Your task to perform on an android device: open chrome privacy settings Image 0: 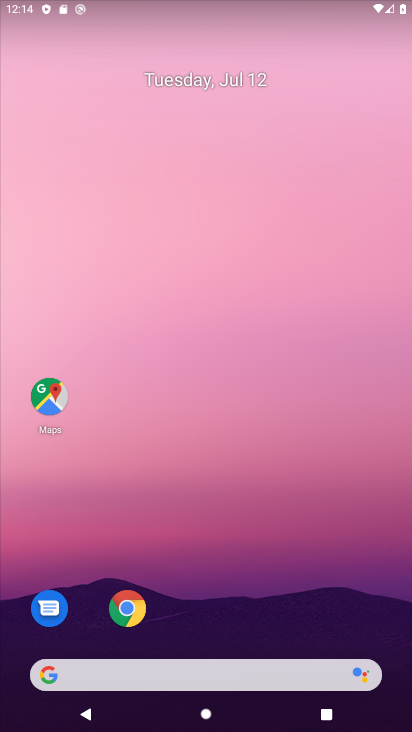
Step 0: drag from (220, 678) to (152, 373)
Your task to perform on an android device: open chrome privacy settings Image 1: 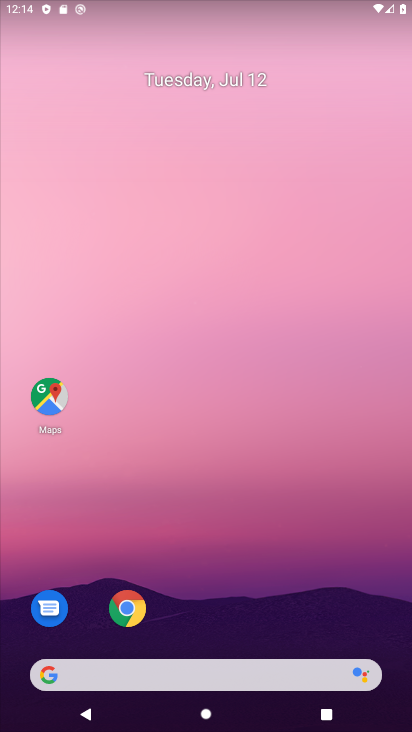
Step 1: drag from (275, 654) to (200, 133)
Your task to perform on an android device: open chrome privacy settings Image 2: 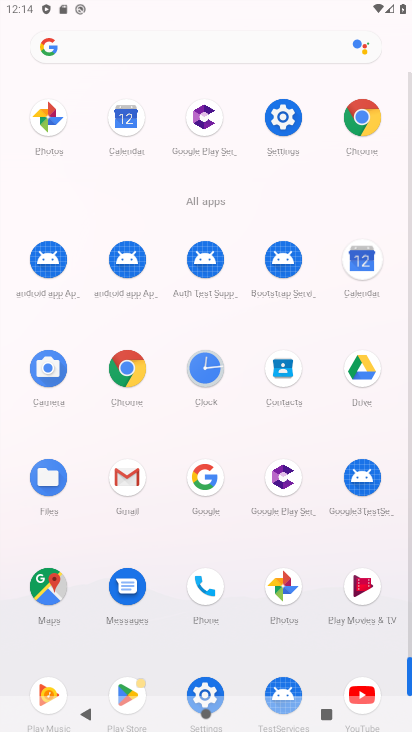
Step 2: click (287, 118)
Your task to perform on an android device: open chrome privacy settings Image 3: 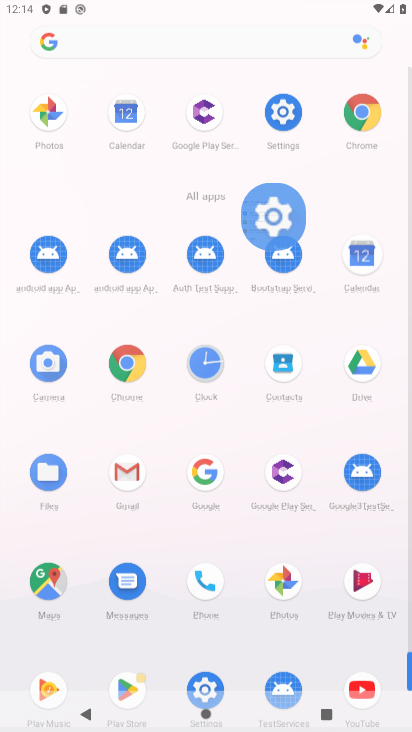
Step 3: click (283, 119)
Your task to perform on an android device: open chrome privacy settings Image 4: 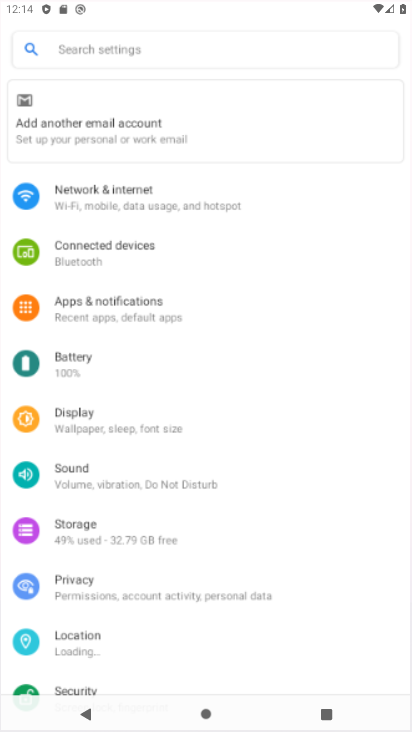
Step 4: click (286, 122)
Your task to perform on an android device: open chrome privacy settings Image 5: 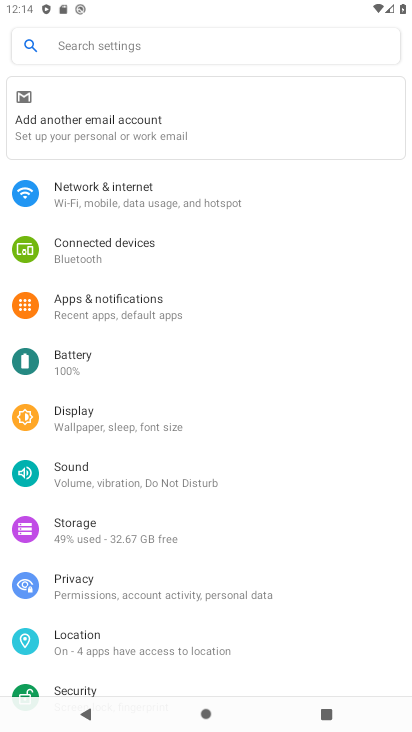
Step 5: click (76, 589)
Your task to perform on an android device: open chrome privacy settings Image 6: 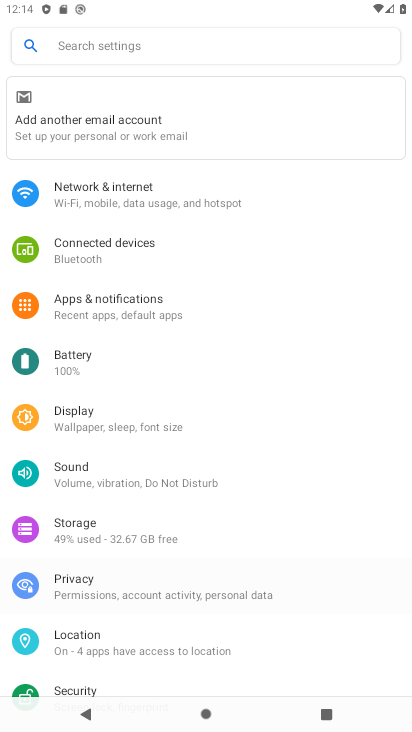
Step 6: click (76, 589)
Your task to perform on an android device: open chrome privacy settings Image 7: 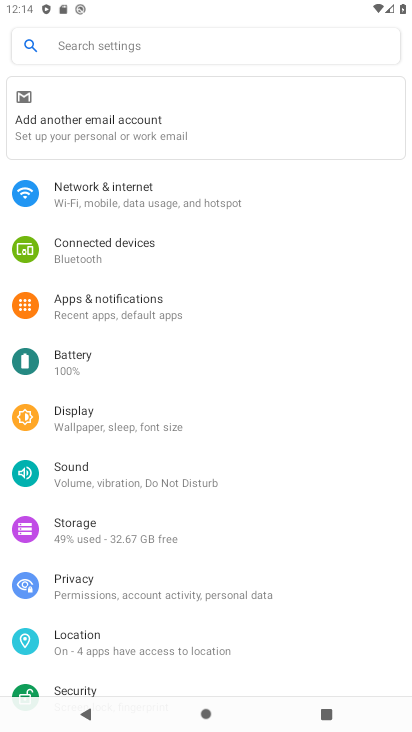
Step 7: click (81, 592)
Your task to perform on an android device: open chrome privacy settings Image 8: 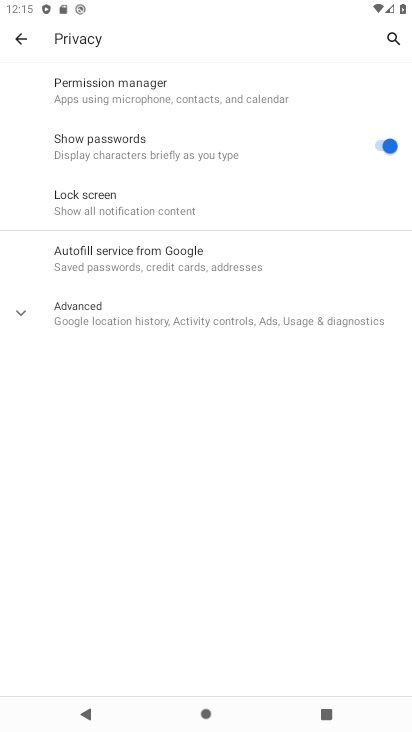
Step 8: click (14, 32)
Your task to perform on an android device: open chrome privacy settings Image 9: 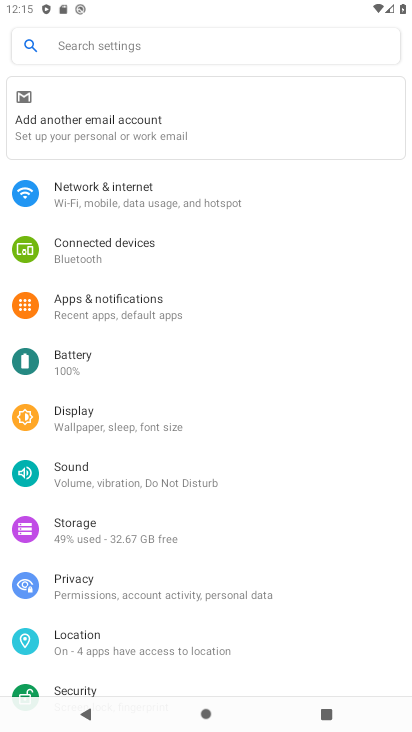
Step 9: click (74, 575)
Your task to perform on an android device: open chrome privacy settings Image 10: 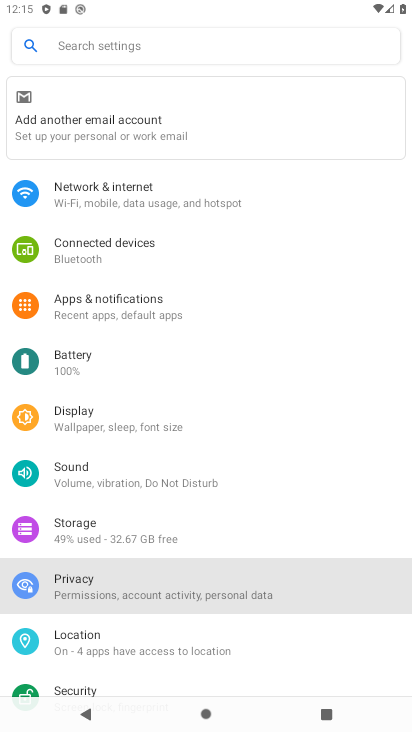
Step 10: click (74, 575)
Your task to perform on an android device: open chrome privacy settings Image 11: 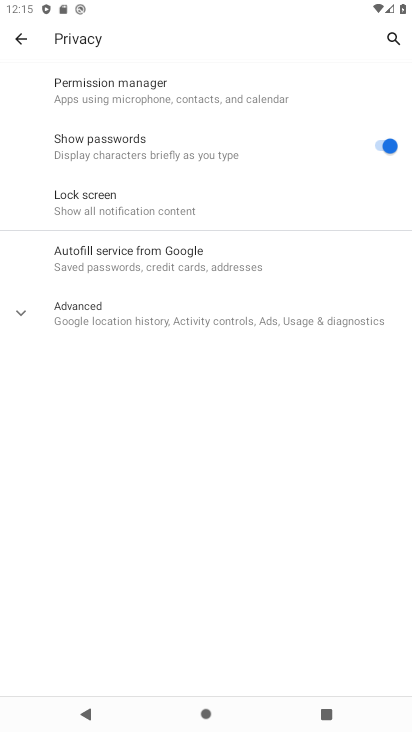
Step 11: click (17, 35)
Your task to perform on an android device: open chrome privacy settings Image 12: 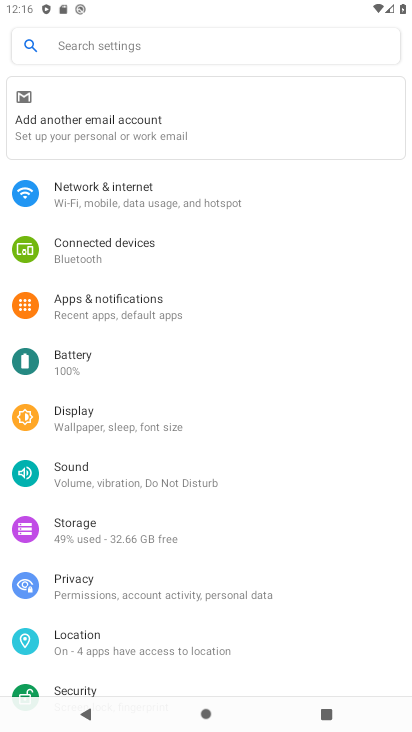
Step 12: click (20, 37)
Your task to perform on an android device: open chrome privacy settings Image 13: 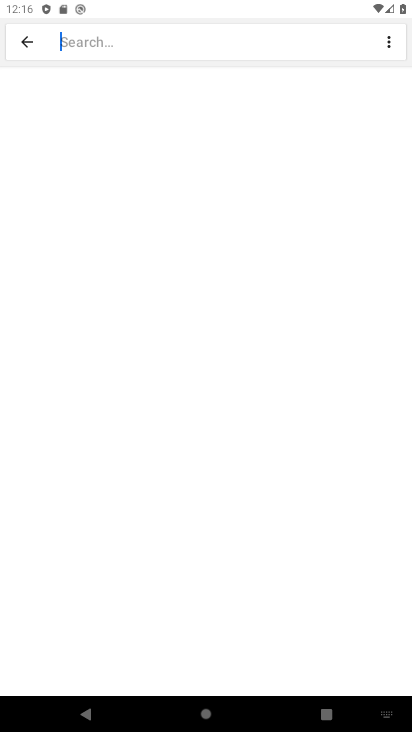
Step 13: click (28, 52)
Your task to perform on an android device: open chrome privacy settings Image 14: 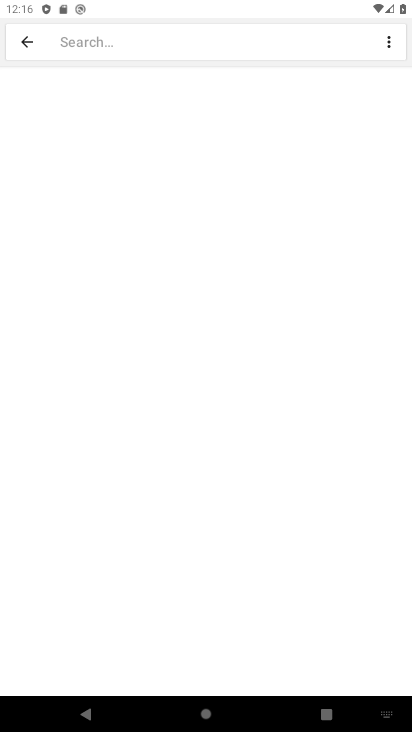
Step 14: click (28, 52)
Your task to perform on an android device: open chrome privacy settings Image 15: 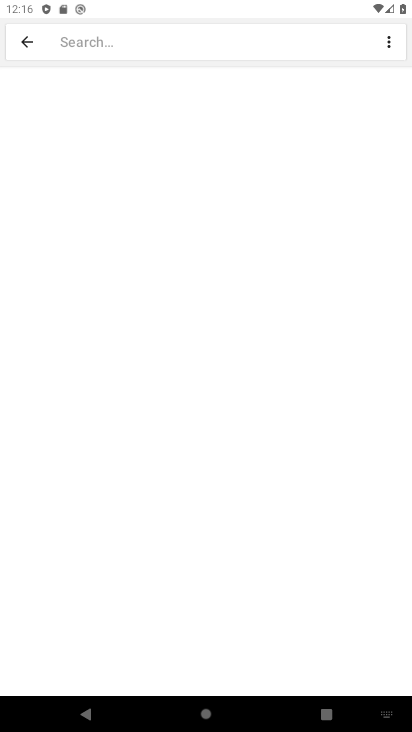
Step 15: click (30, 51)
Your task to perform on an android device: open chrome privacy settings Image 16: 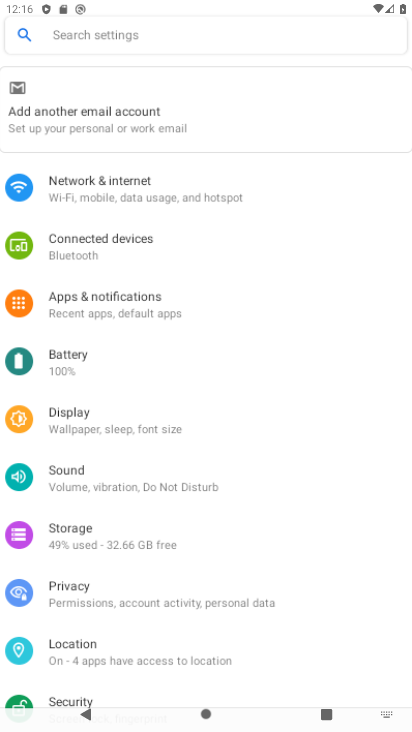
Step 16: click (30, 51)
Your task to perform on an android device: open chrome privacy settings Image 17: 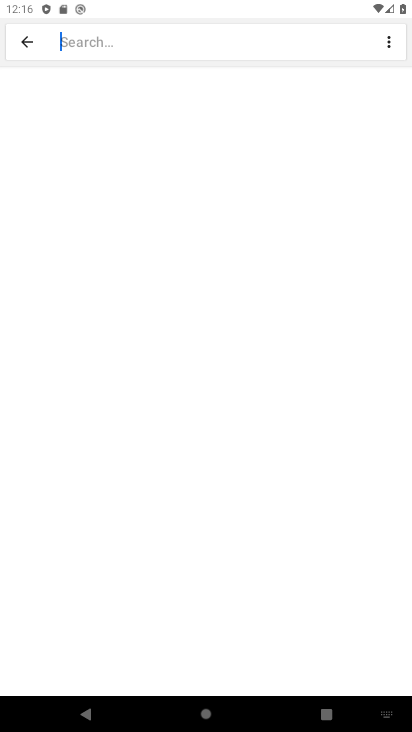
Step 17: click (28, 39)
Your task to perform on an android device: open chrome privacy settings Image 18: 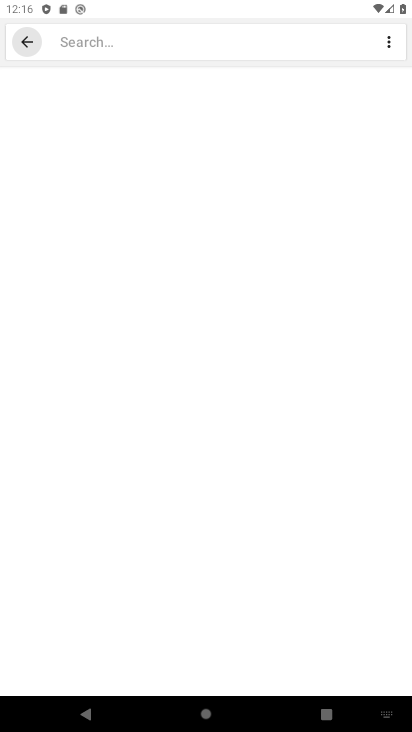
Step 18: click (27, 37)
Your task to perform on an android device: open chrome privacy settings Image 19: 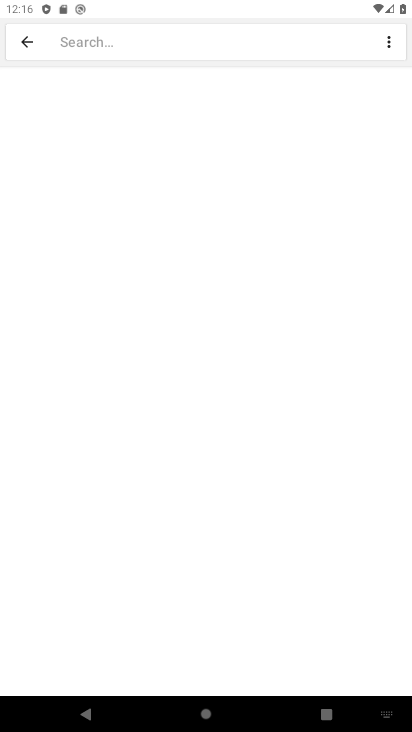
Step 19: click (31, 38)
Your task to perform on an android device: open chrome privacy settings Image 20: 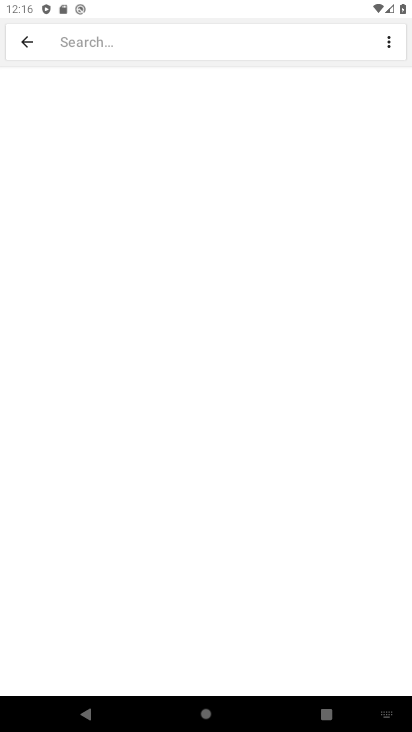
Step 20: click (25, 34)
Your task to perform on an android device: open chrome privacy settings Image 21: 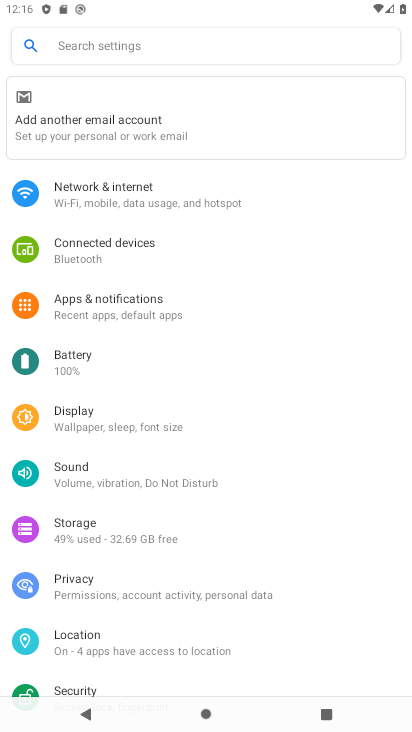
Step 21: drag from (101, 486) to (87, 297)
Your task to perform on an android device: open chrome privacy settings Image 22: 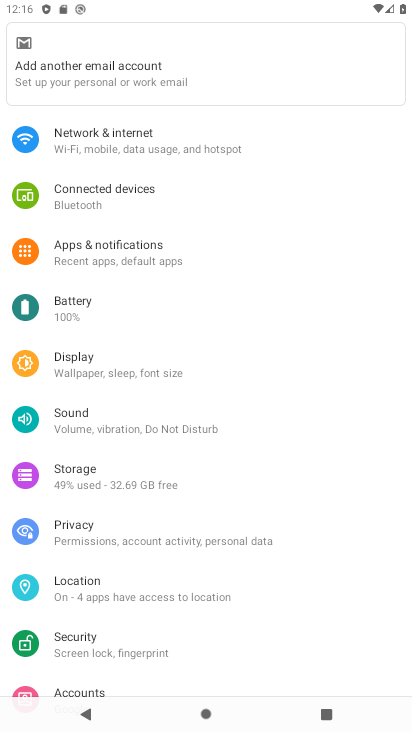
Step 22: drag from (65, 567) to (73, 399)
Your task to perform on an android device: open chrome privacy settings Image 23: 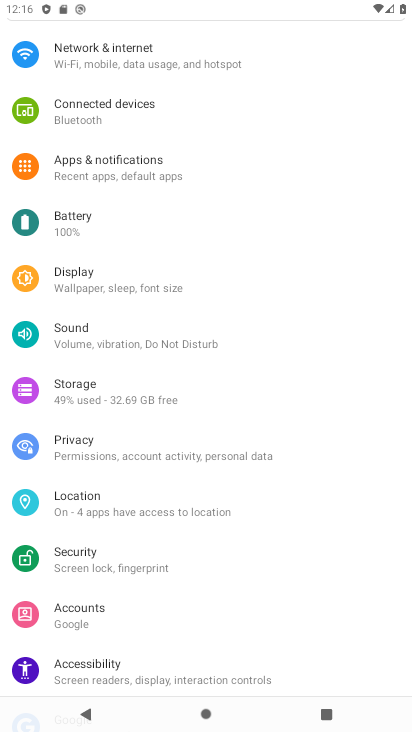
Step 23: click (80, 448)
Your task to perform on an android device: open chrome privacy settings Image 24: 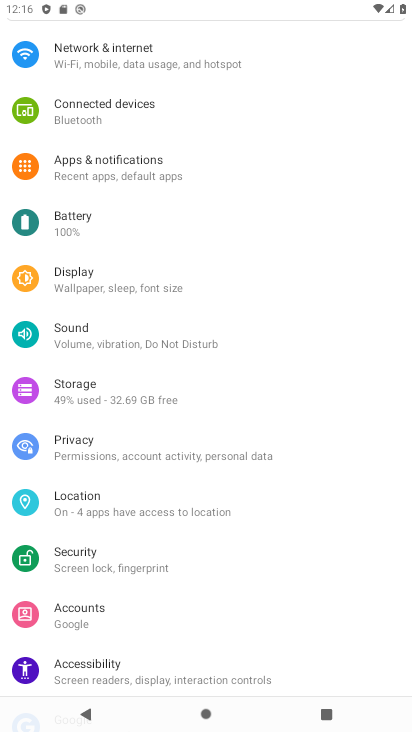
Step 24: click (81, 445)
Your task to perform on an android device: open chrome privacy settings Image 25: 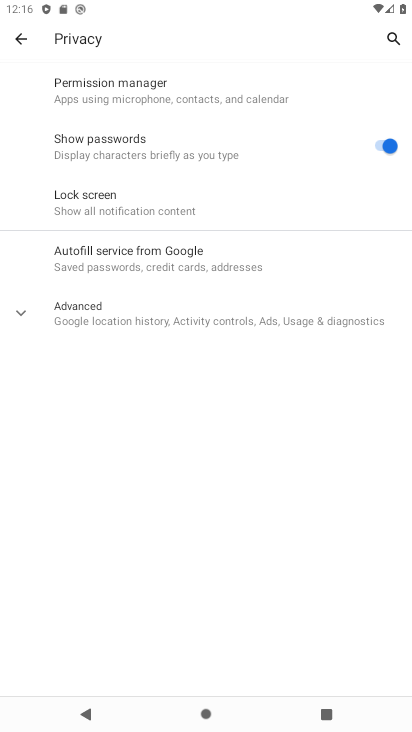
Step 25: task complete